Your task to perform on an android device: Go to notification settings Image 0: 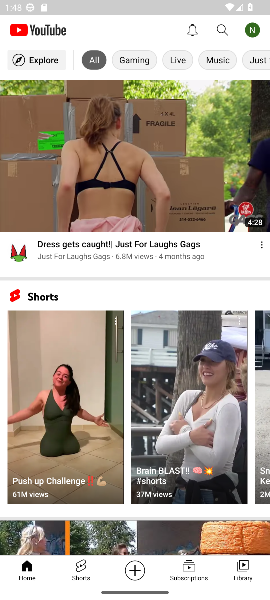
Step 0: press home button
Your task to perform on an android device: Go to notification settings Image 1: 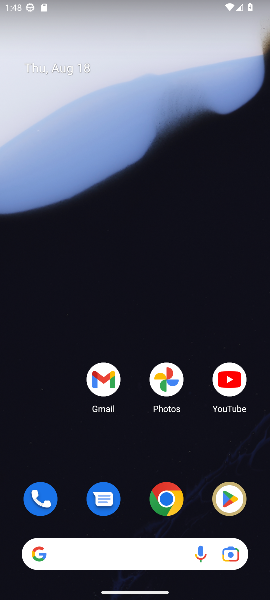
Step 1: drag from (133, 455) to (134, 68)
Your task to perform on an android device: Go to notification settings Image 2: 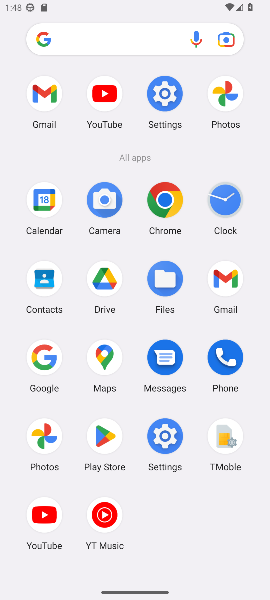
Step 2: click (165, 95)
Your task to perform on an android device: Go to notification settings Image 3: 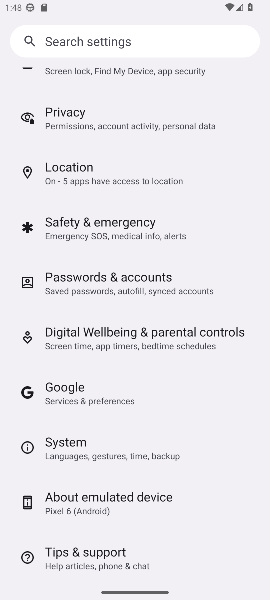
Step 3: drag from (157, 143) to (146, 394)
Your task to perform on an android device: Go to notification settings Image 4: 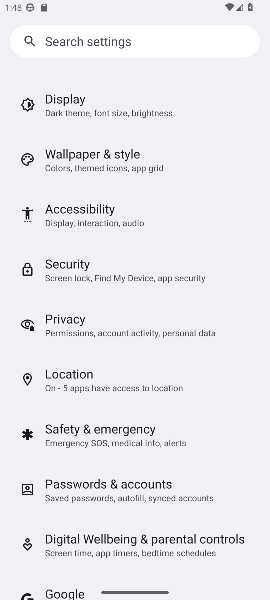
Step 4: drag from (148, 140) to (143, 412)
Your task to perform on an android device: Go to notification settings Image 5: 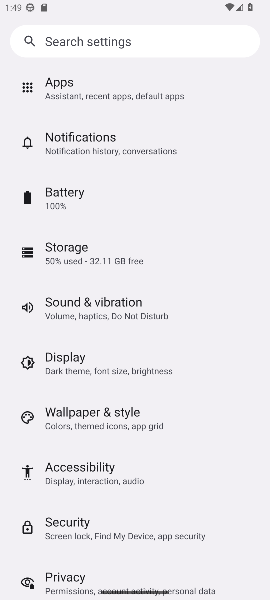
Step 5: click (79, 135)
Your task to perform on an android device: Go to notification settings Image 6: 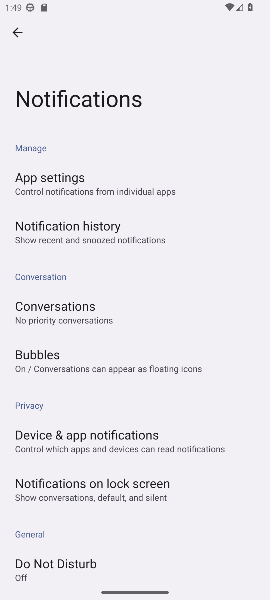
Step 6: task complete